Your task to perform on an android device: manage bookmarks in the chrome app Image 0: 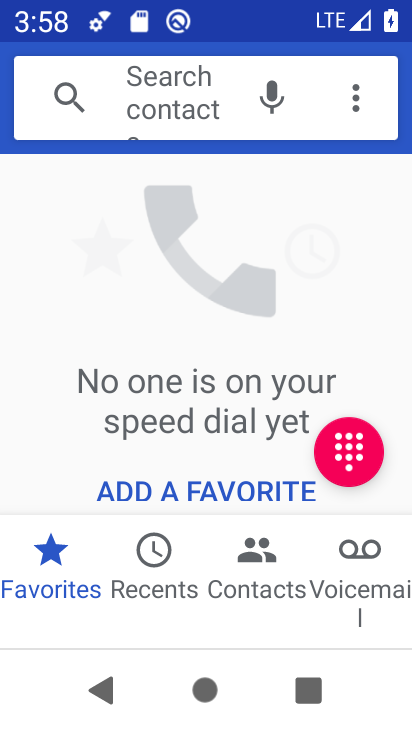
Step 0: press home button
Your task to perform on an android device: manage bookmarks in the chrome app Image 1: 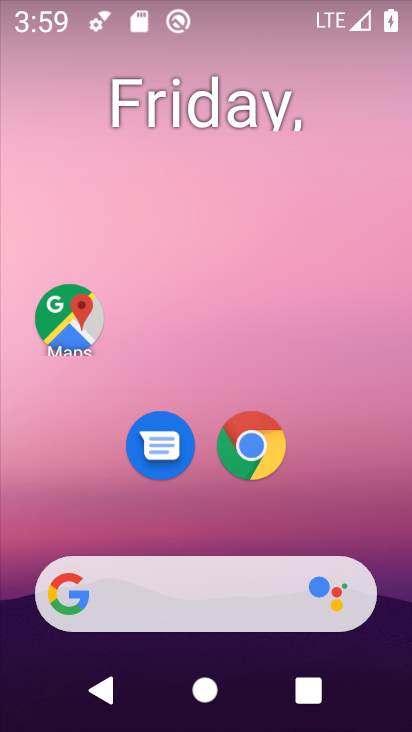
Step 1: drag from (393, 558) to (337, 197)
Your task to perform on an android device: manage bookmarks in the chrome app Image 2: 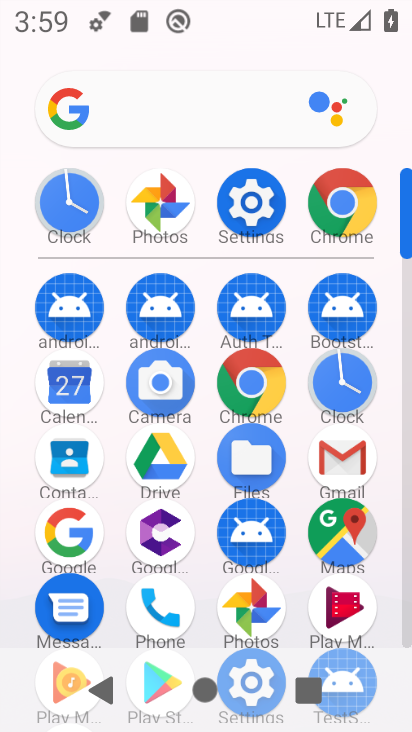
Step 2: click (342, 225)
Your task to perform on an android device: manage bookmarks in the chrome app Image 3: 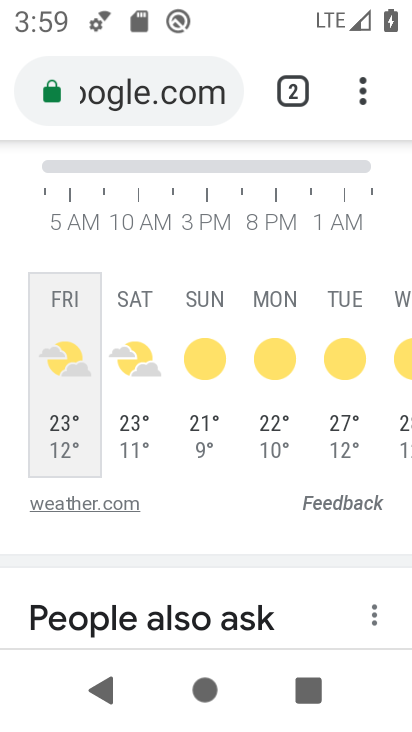
Step 3: click (362, 92)
Your task to perform on an android device: manage bookmarks in the chrome app Image 4: 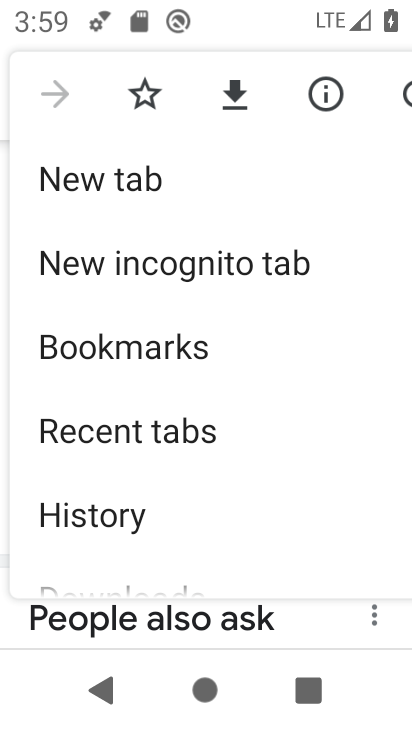
Step 4: click (177, 362)
Your task to perform on an android device: manage bookmarks in the chrome app Image 5: 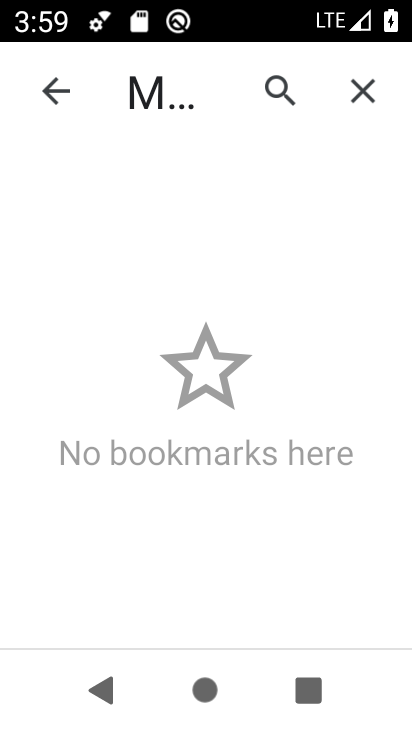
Step 5: task complete